Your task to perform on an android device: Is it going to rain today? Image 0: 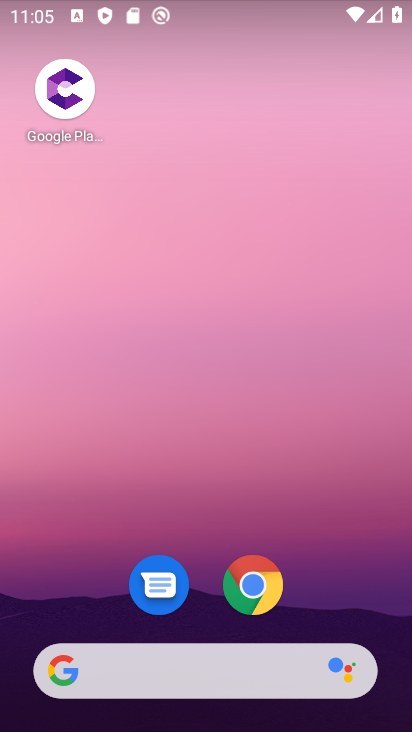
Step 0: click (127, 670)
Your task to perform on an android device: Is it going to rain today? Image 1: 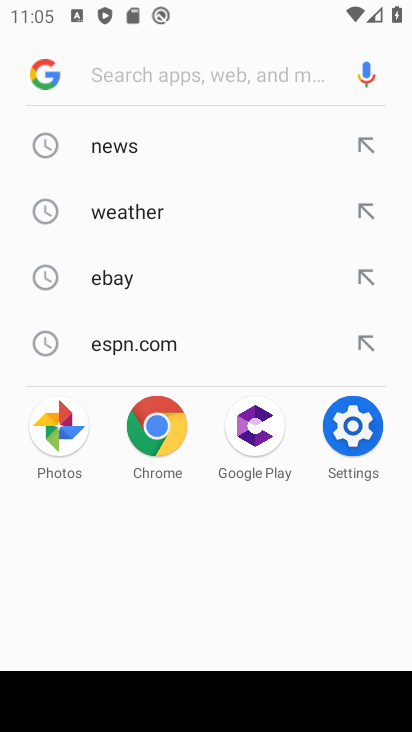
Step 1: click (125, 204)
Your task to perform on an android device: Is it going to rain today? Image 2: 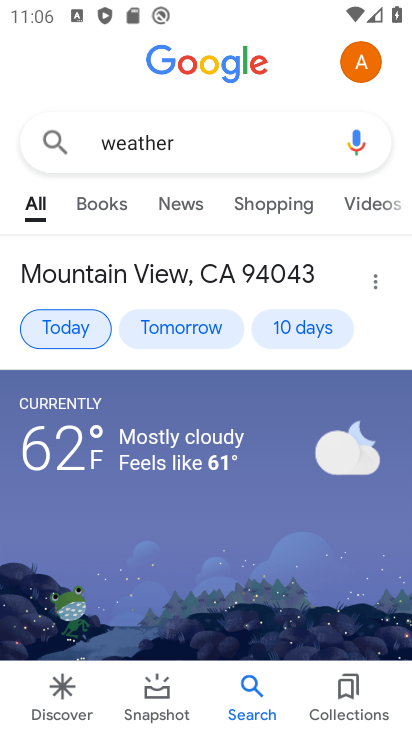
Step 2: click (96, 326)
Your task to perform on an android device: Is it going to rain today? Image 3: 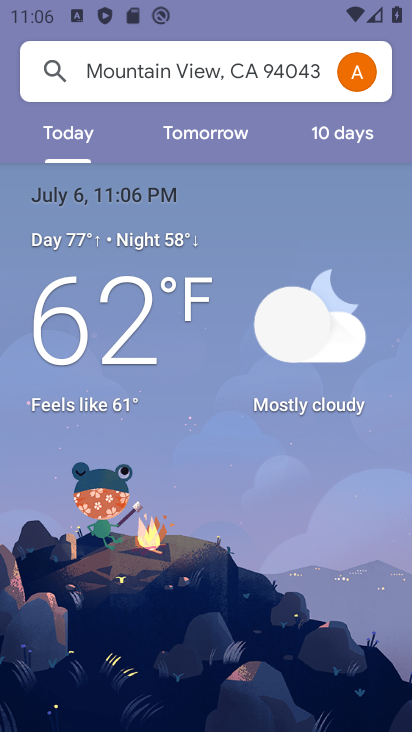
Step 3: task complete